Your task to perform on an android device: open a new tab in the chrome app Image 0: 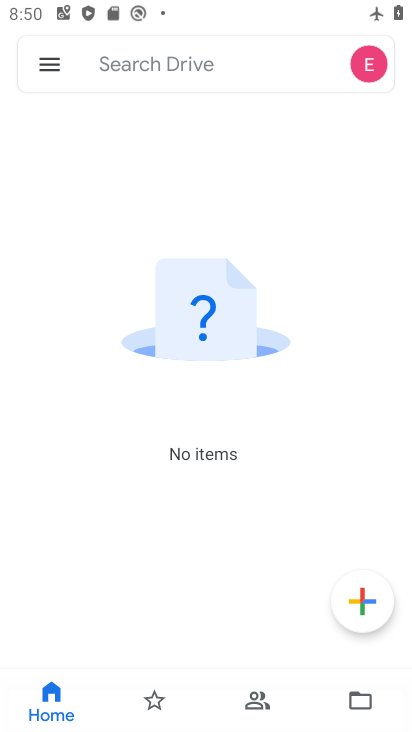
Step 0: press home button
Your task to perform on an android device: open a new tab in the chrome app Image 1: 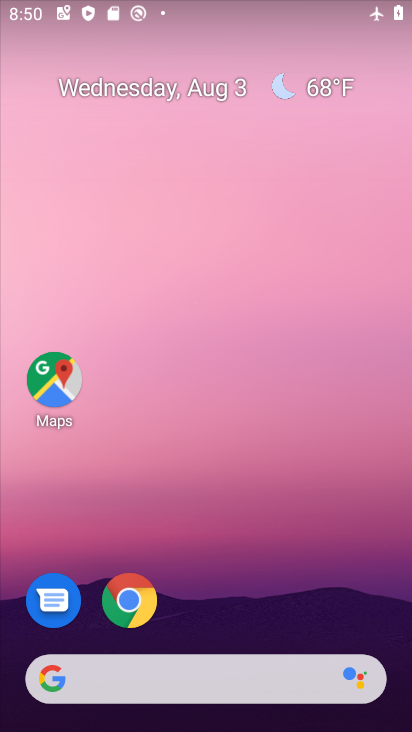
Step 1: click (133, 606)
Your task to perform on an android device: open a new tab in the chrome app Image 2: 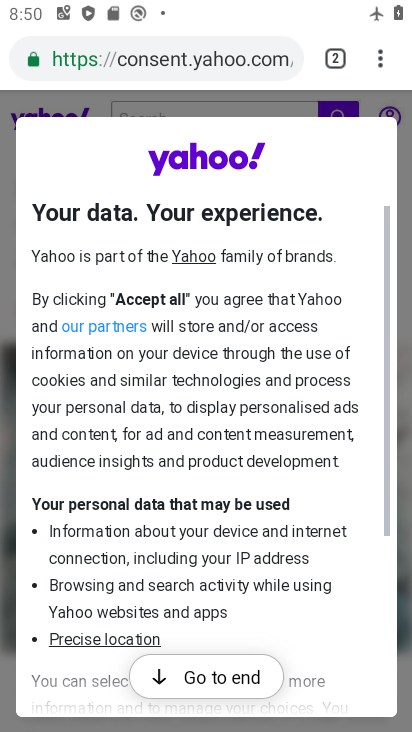
Step 2: click (378, 54)
Your task to perform on an android device: open a new tab in the chrome app Image 3: 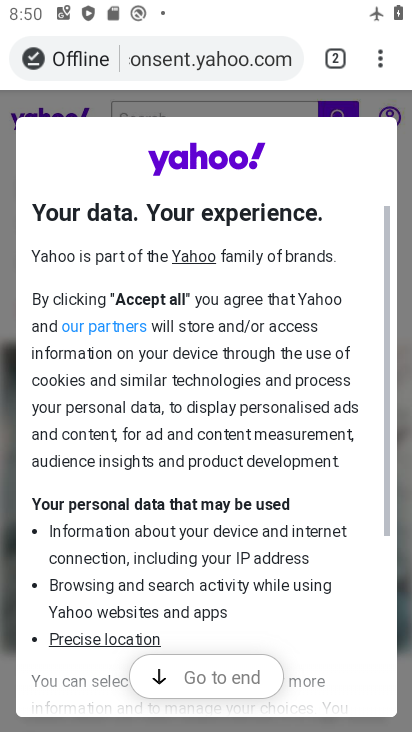
Step 3: click (381, 60)
Your task to perform on an android device: open a new tab in the chrome app Image 4: 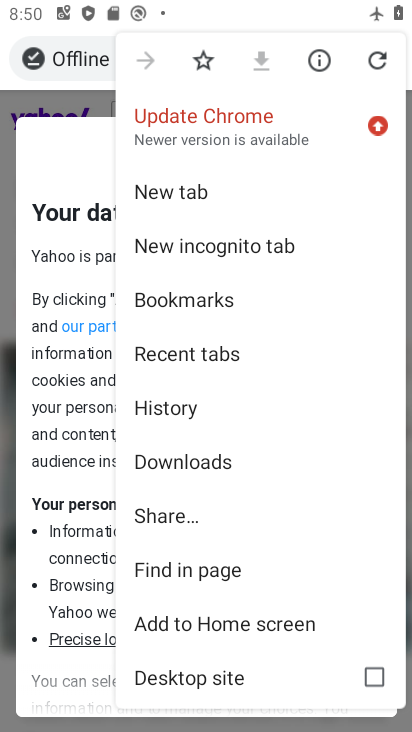
Step 4: click (173, 188)
Your task to perform on an android device: open a new tab in the chrome app Image 5: 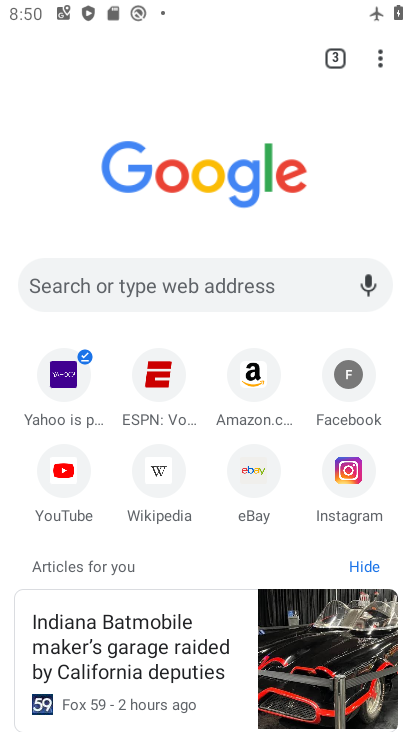
Step 5: task complete